Your task to perform on an android device: add a contact in the contacts app Image 0: 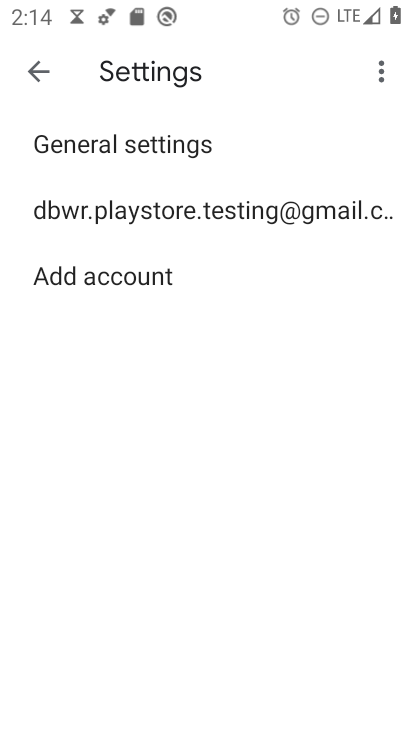
Step 0: press home button
Your task to perform on an android device: add a contact in the contacts app Image 1: 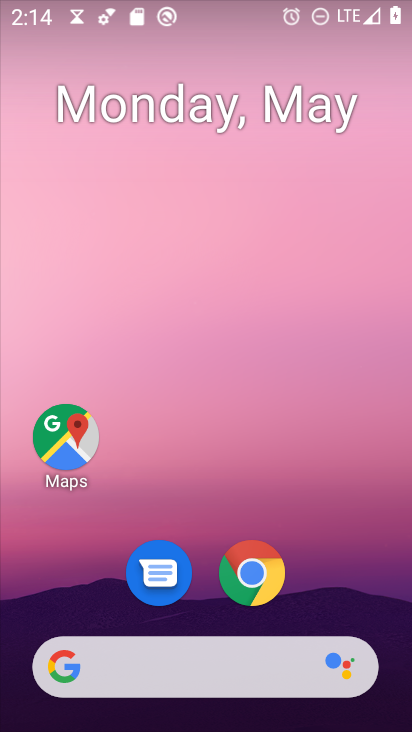
Step 1: drag from (296, 645) to (325, 90)
Your task to perform on an android device: add a contact in the contacts app Image 2: 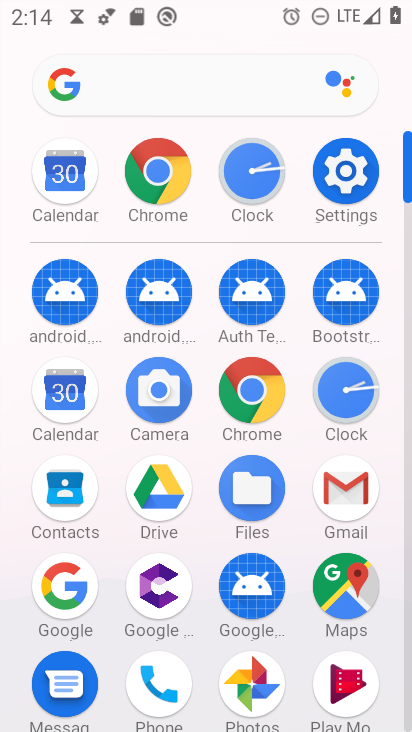
Step 2: click (54, 502)
Your task to perform on an android device: add a contact in the contacts app Image 3: 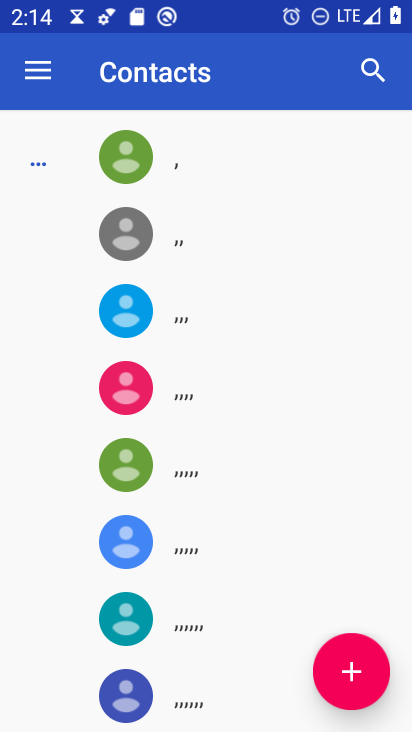
Step 3: click (349, 673)
Your task to perform on an android device: add a contact in the contacts app Image 4: 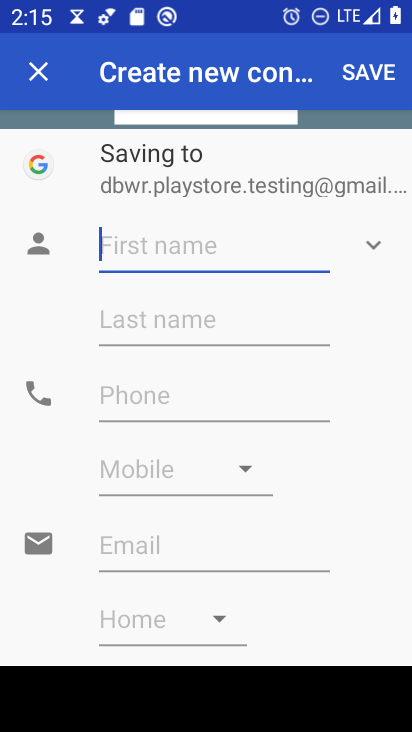
Step 4: type "jhjfhgdh"
Your task to perform on an android device: add a contact in the contacts app Image 5: 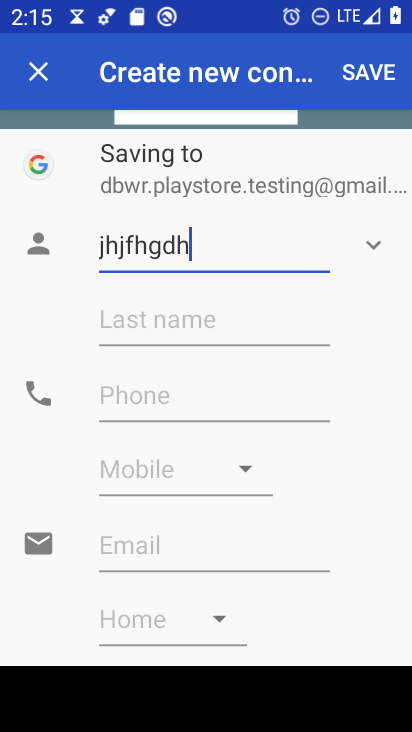
Step 5: click (225, 381)
Your task to perform on an android device: add a contact in the contacts app Image 6: 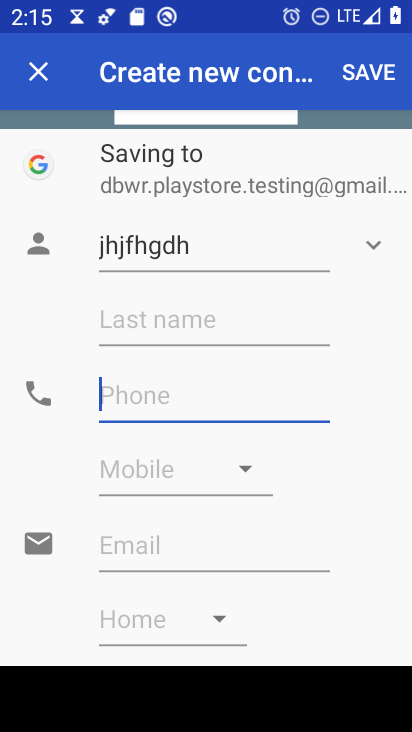
Step 6: type "9897678899"
Your task to perform on an android device: add a contact in the contacts app Image 7: 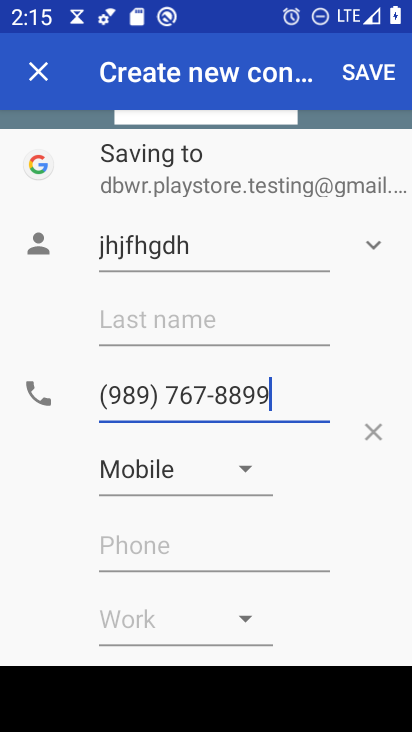
Step 7: click (363, 73)
Your task to perform on an android device: add a contact in the contacts app Image 8: 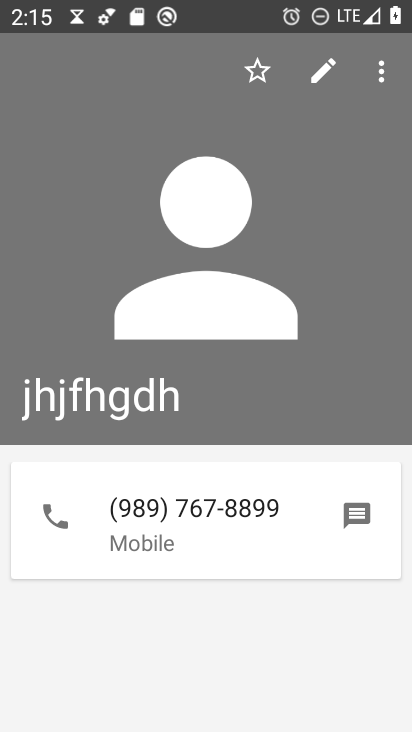
Step 8: task complete